Your task to perform on an android device: empty trash in google photos Image 0: 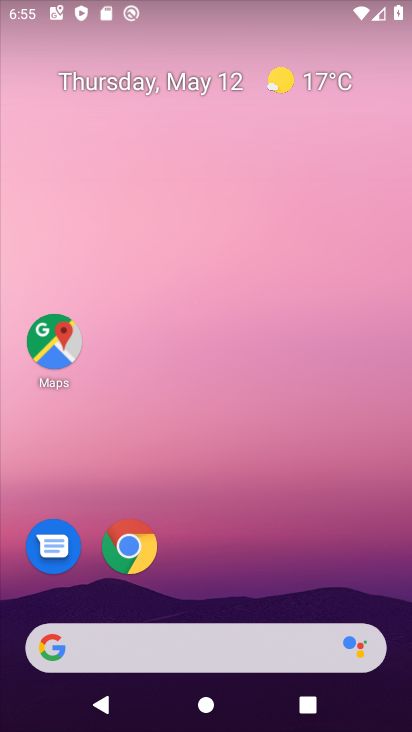
Step 0: drag from (222, 499) to (113, 23)
Your task to perform on an android device: empty trash in google photos Image 1: 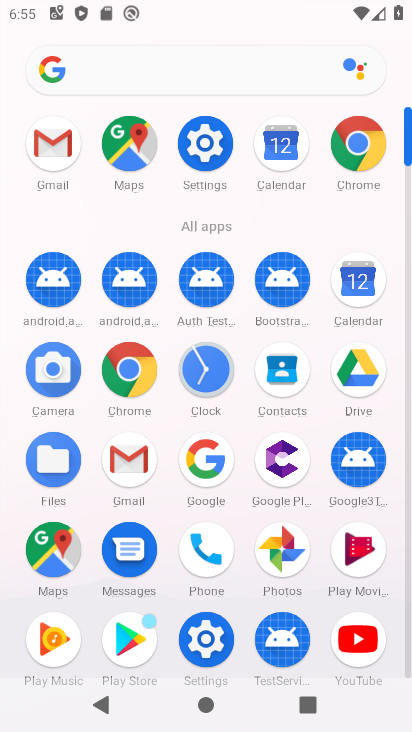
Step 1: click (278, 560)
Your task to perform on an android device: empty trash in google photos Image 2: 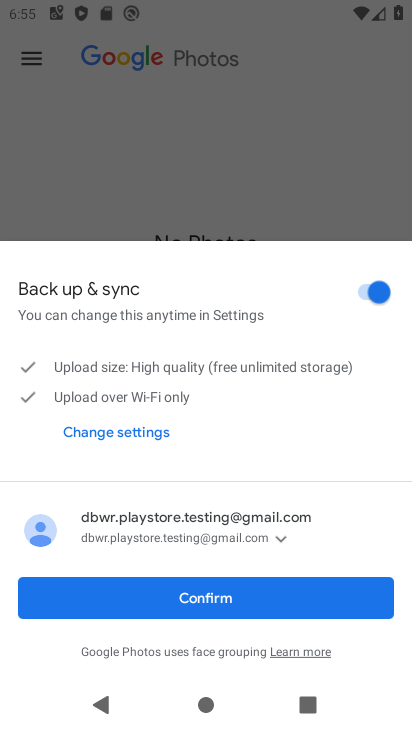
Step 2: click (211, 597)
Your task to perform on an android device: empty trash in google photos Image 3: 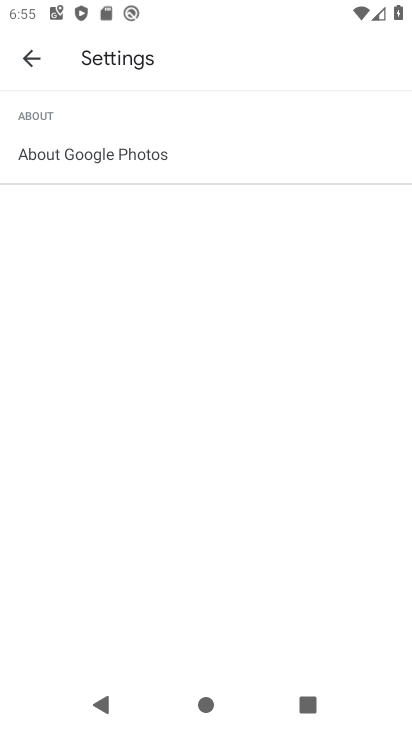
Step 3: click (28, 57)
Your task to perform on an android device: empty trash in google photos Image 4: 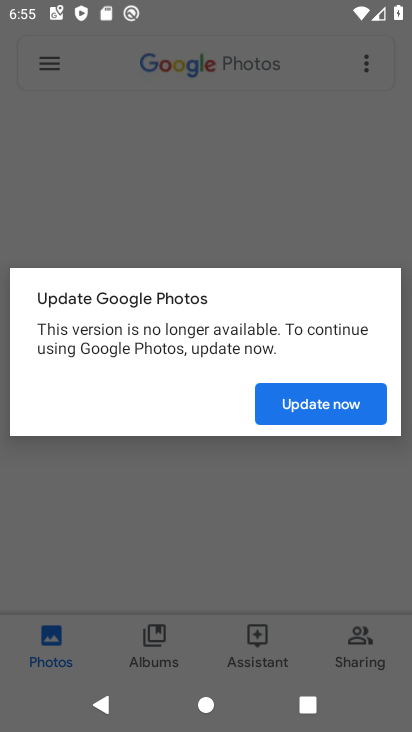
Step 4: click (291, 406)
Your task to perform on an android device: empty trash in google photos Image 5: 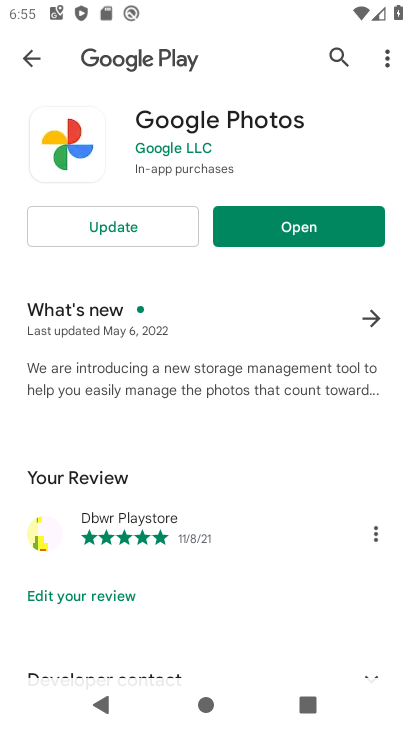
Step 5: click (109, 224)
Your task to perform on an android device: empty trash in google photos Image 6: 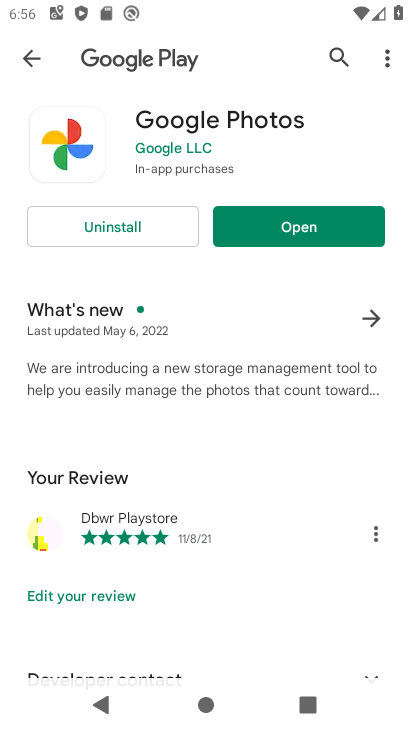
Step 6: click (286, 237)
Your task to perform on an android device: empty trash in google photos Image 7: 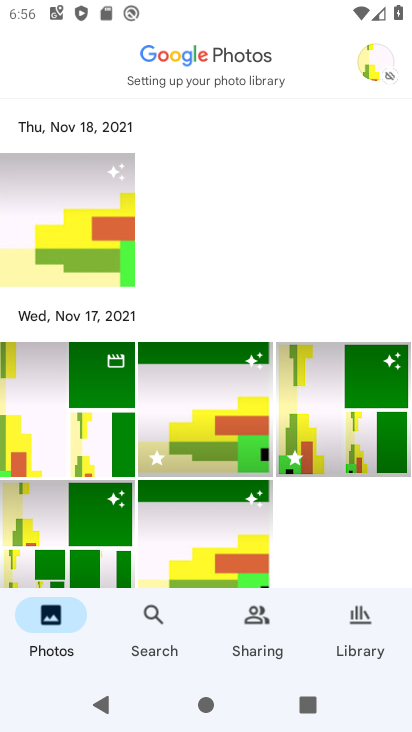
Step 7: click (361, 622)
Your task to perform on an android device: empty trash in google photos Image 8: 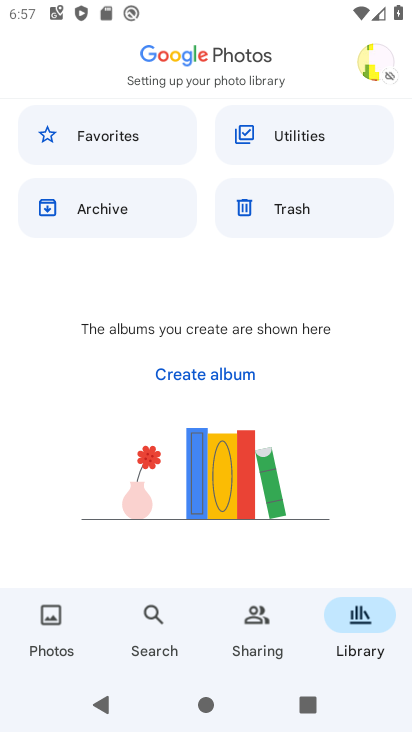
Step 8: click (291, 206)
Your task to perform on an android device: empty trash in google photos Image 9: 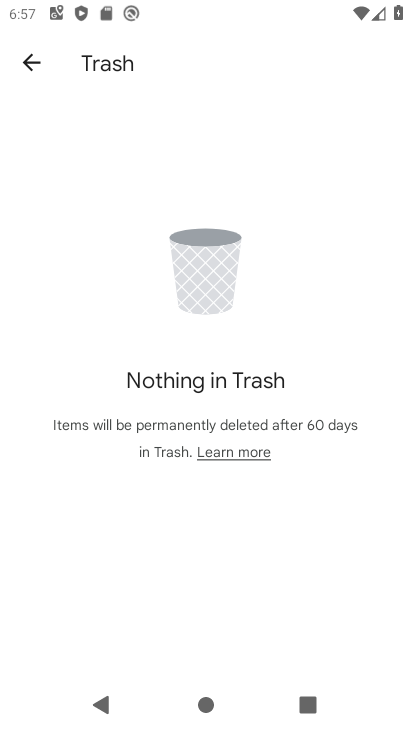
Step 9: task complete